Your task to perform on an android device: Open calendar and show me the fourth week of next month Image 0: 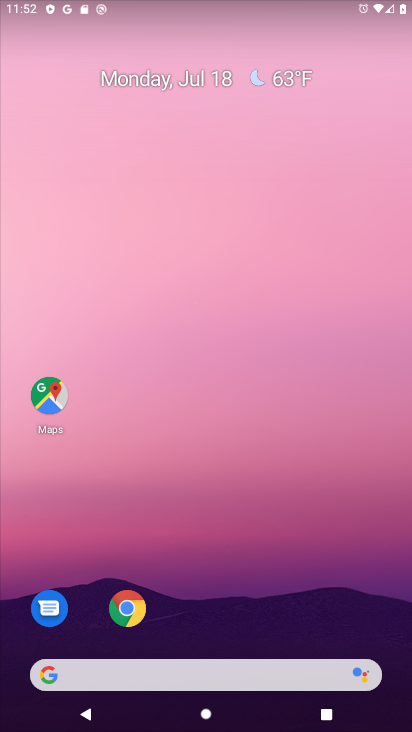
Step 0: drag from (263, 601) to (239, 117)
Your task to perform on an android device: Open calendar and show me the fourth week of next month Image 1: 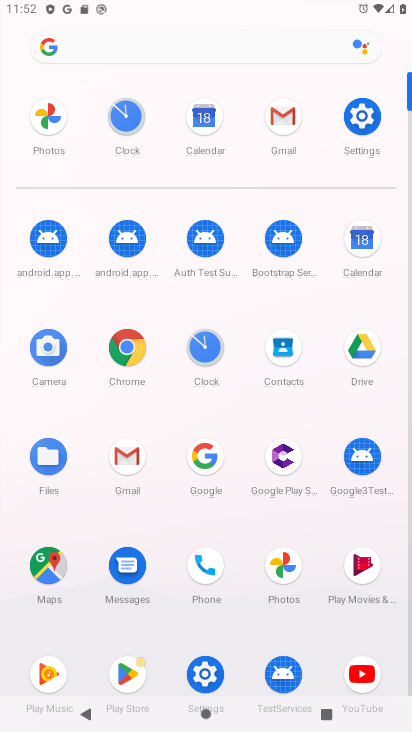
Step 1: click (372, 230)
Your task to perform on an android device: Open calendar and show me the fourth week of next month Image 2: 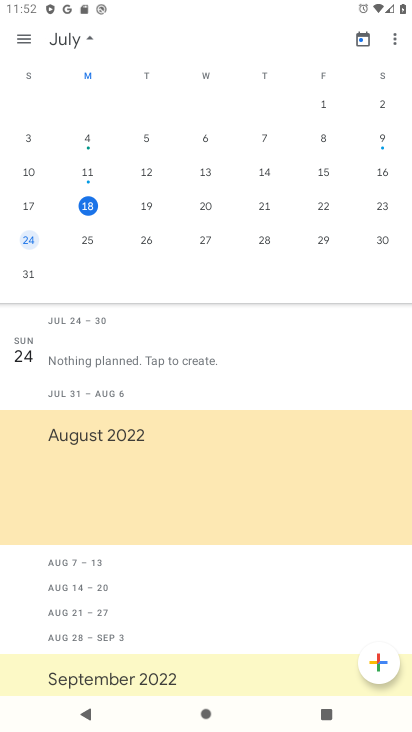
Step 2: drag from (392, 215) to (5, 197)
Your task to perform on an android device: Open calendar and show me the fourth week of next month Image 3: 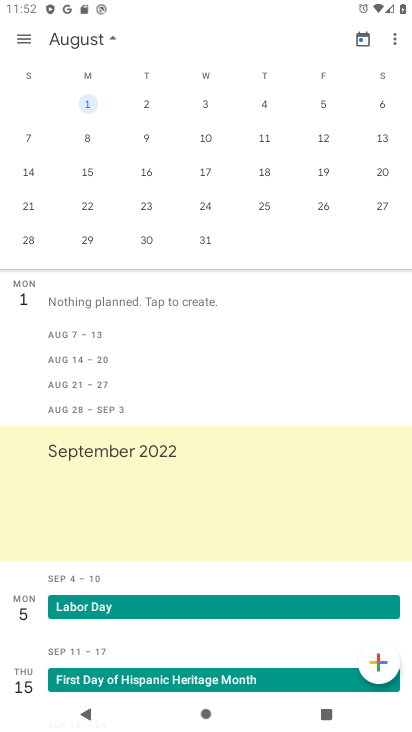
Step 3: click (27, 213)
Your task to perform on an android device: Open calendar and show me the fourth week of next month Image 4: 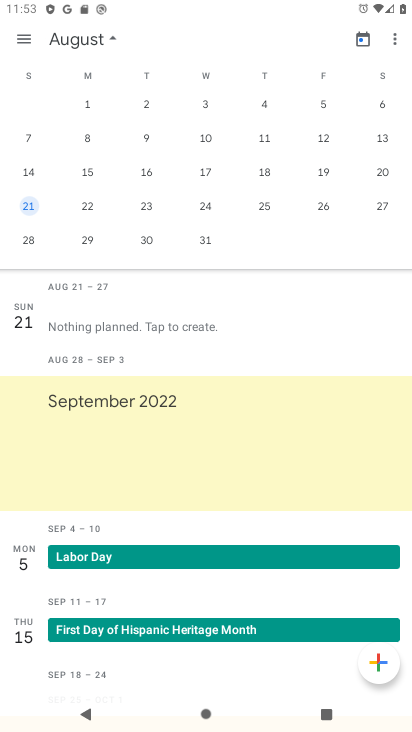
Step 4: task complete